Your task to perform on an android device: Open Youtube and go to "Your channel" Image 0: 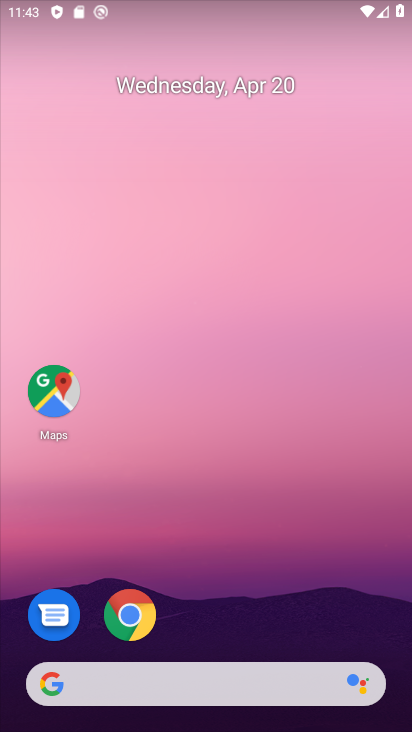
Step 0: drag from (254, 690) to (341, 383)
Your task to perform on an android device: Open Youtube and go to "Your channel" Image 1: 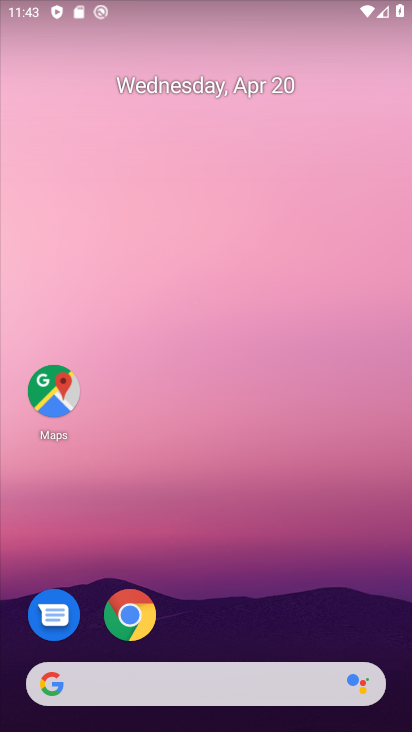
Step 1: drag from (219, 675) to (276, 412)
Your task to perform on an android device: Open Youtube and go to "Your channel" Image 2: 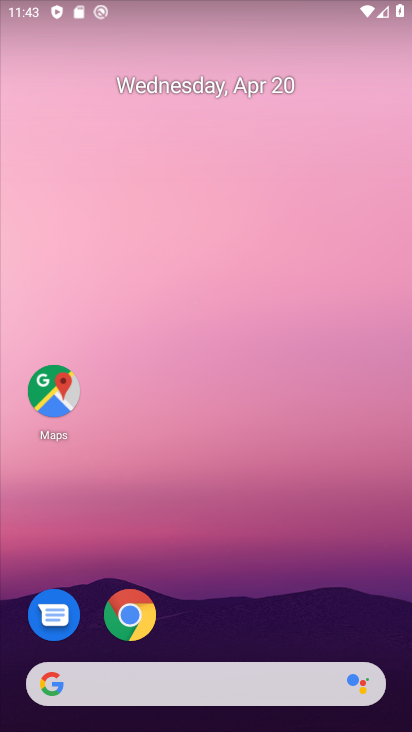
Step 2: drag from (219, 656) to (286, 354)
Your task to perform on an android device: Open Youtube and go to "Your channel" Image 3: 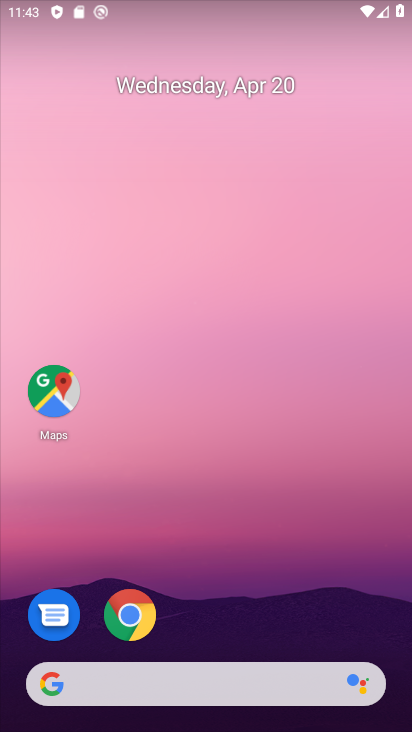
Step 3: drag from (179, 672) to (257, 206)
Your task to perform on an android device: Open Youtube and go to "Your channel" Image 4: 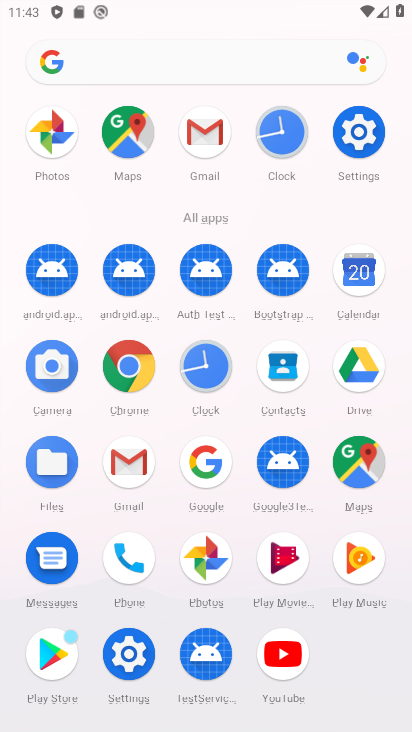
Step 4: click (284, 660)
Your task to perform on an android device: Open Youtube and go to "Your channel" Image 5: 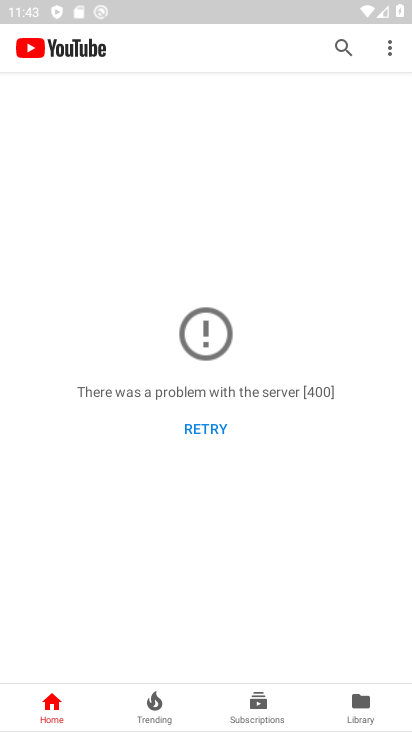
Step 5: click (364, 701)
Your task to perform on an android device: Open Youtube and go to "Your channel" Image 6: 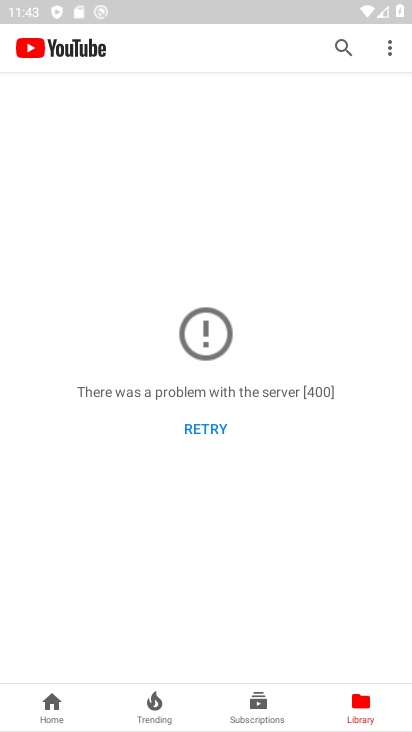
Step 6: task complete